Your task to perform on an android device: turn on the 12-hour format for clock Image 0: 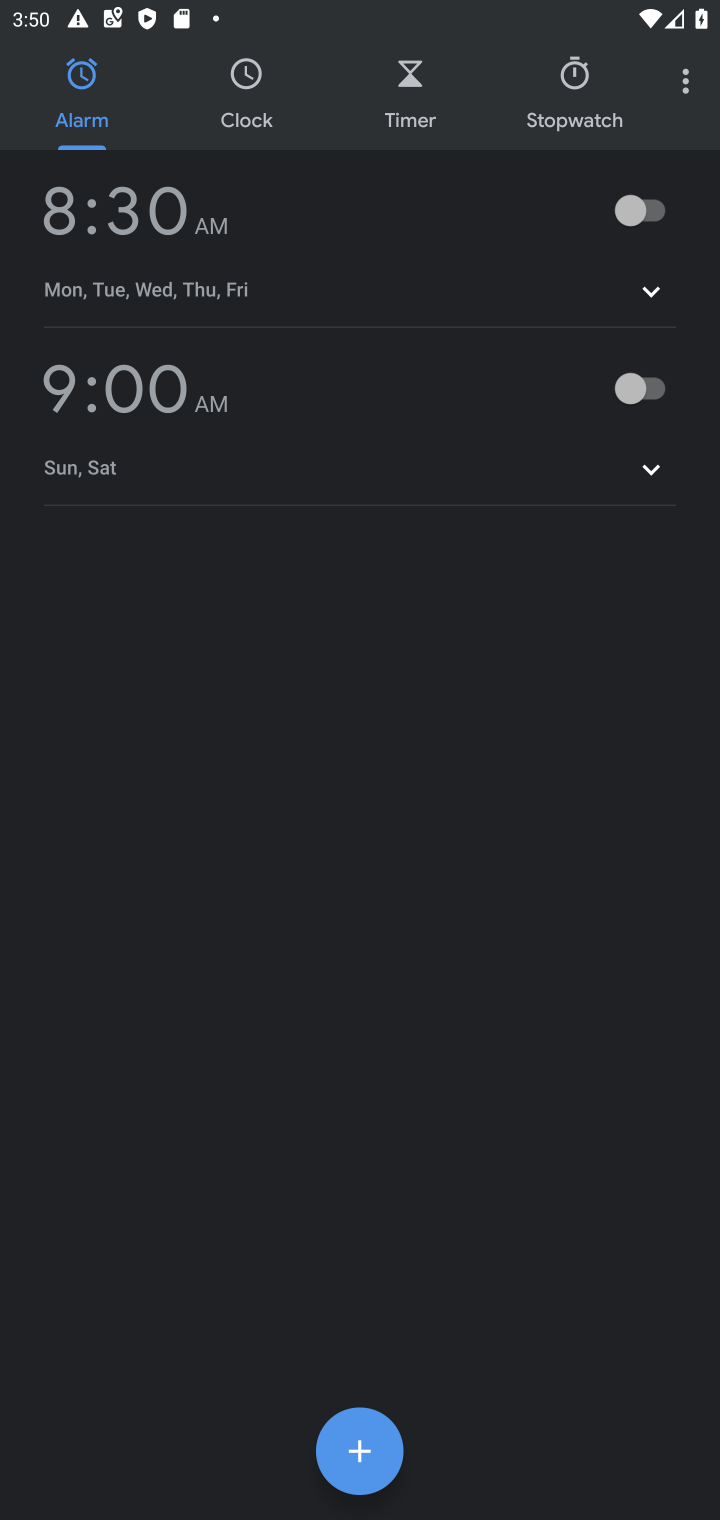
Step 0: click (677, 75)
Your task to perform on an android device: turn on the 12-hour format for clock Image 1: 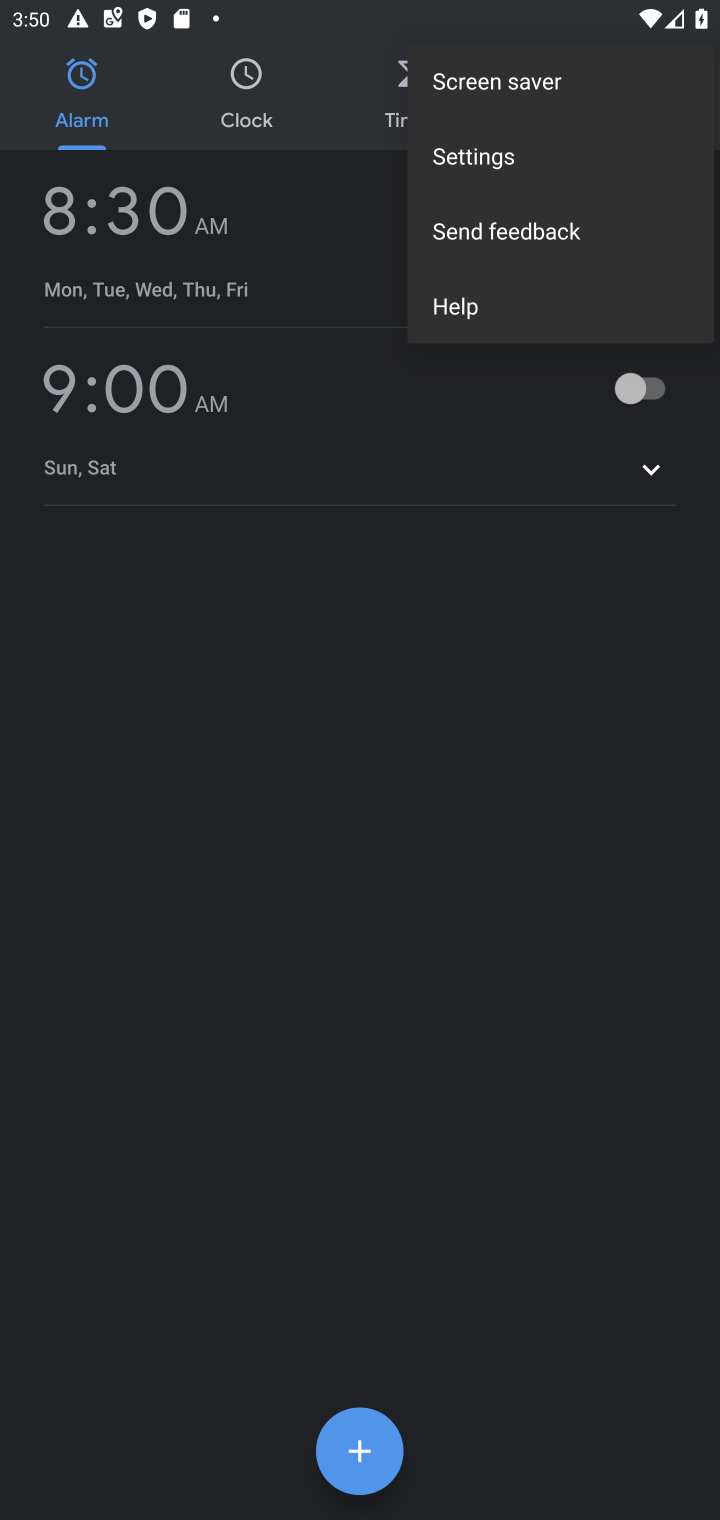
Step 1: click (462, 158)
Your task to perform on an android device: turn on the 12-hour format for clock Image 2: 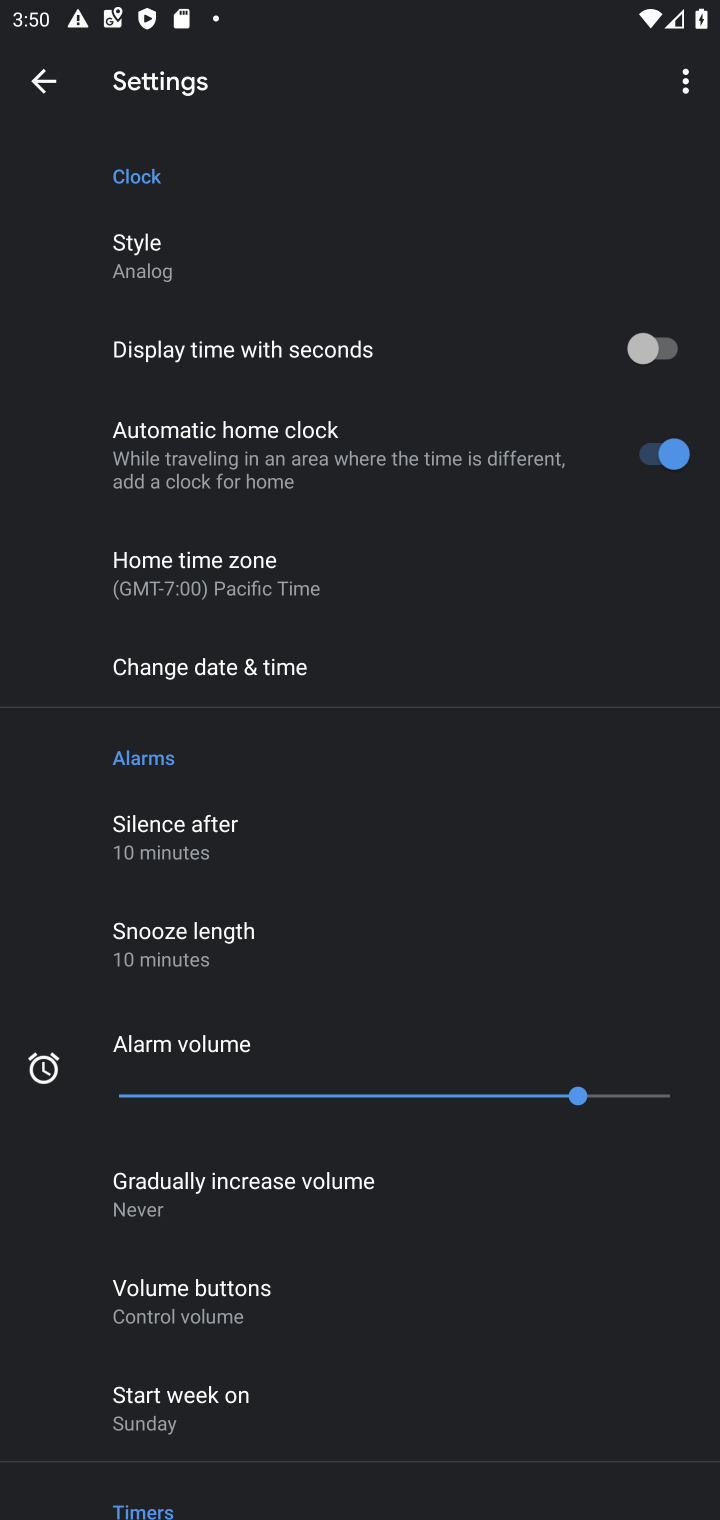
Step 2: click (303, 650)
Your task to perform on an android device: turn on the 12-hour format for clock Image 3: 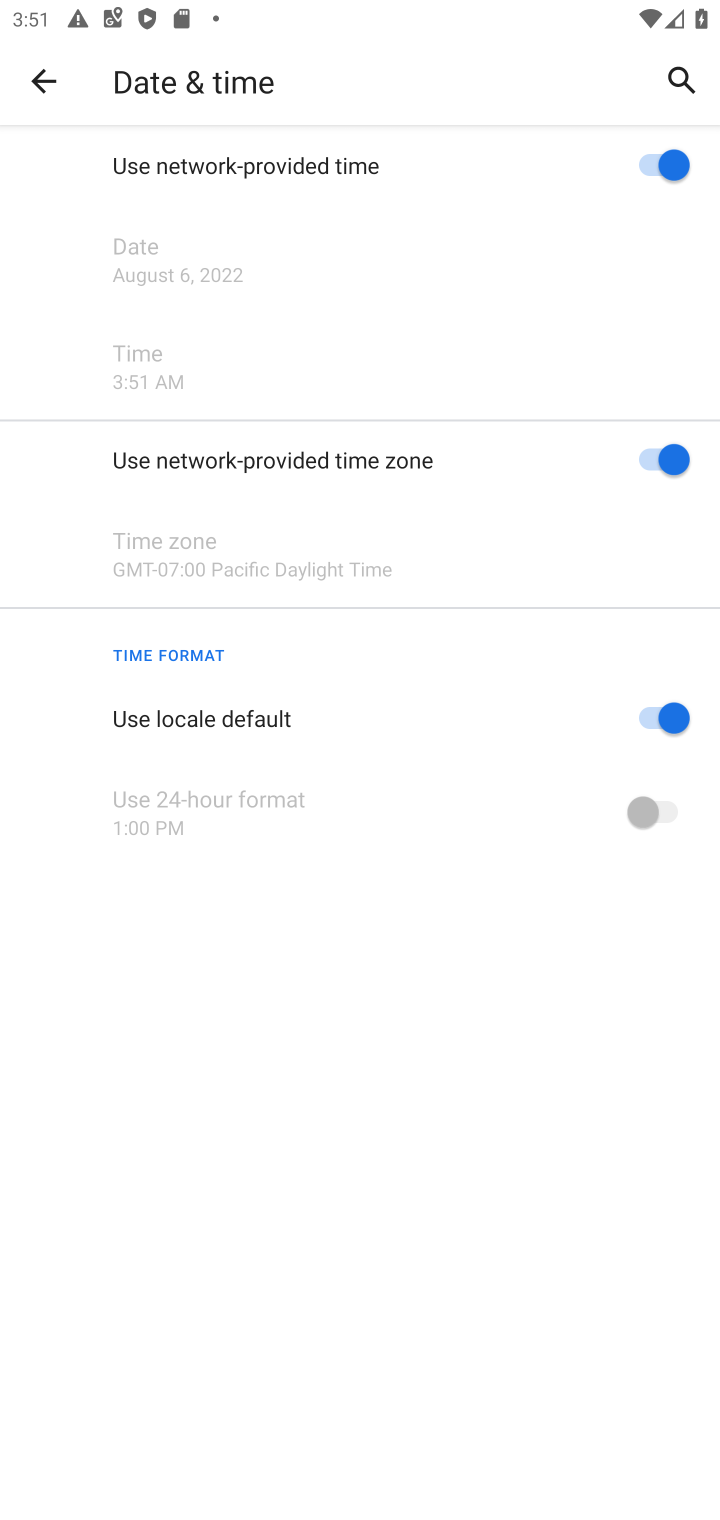
Step 3: click (640, 718)
Your task to perform on an android device: turn on the 12-hour format for clock Image 4: 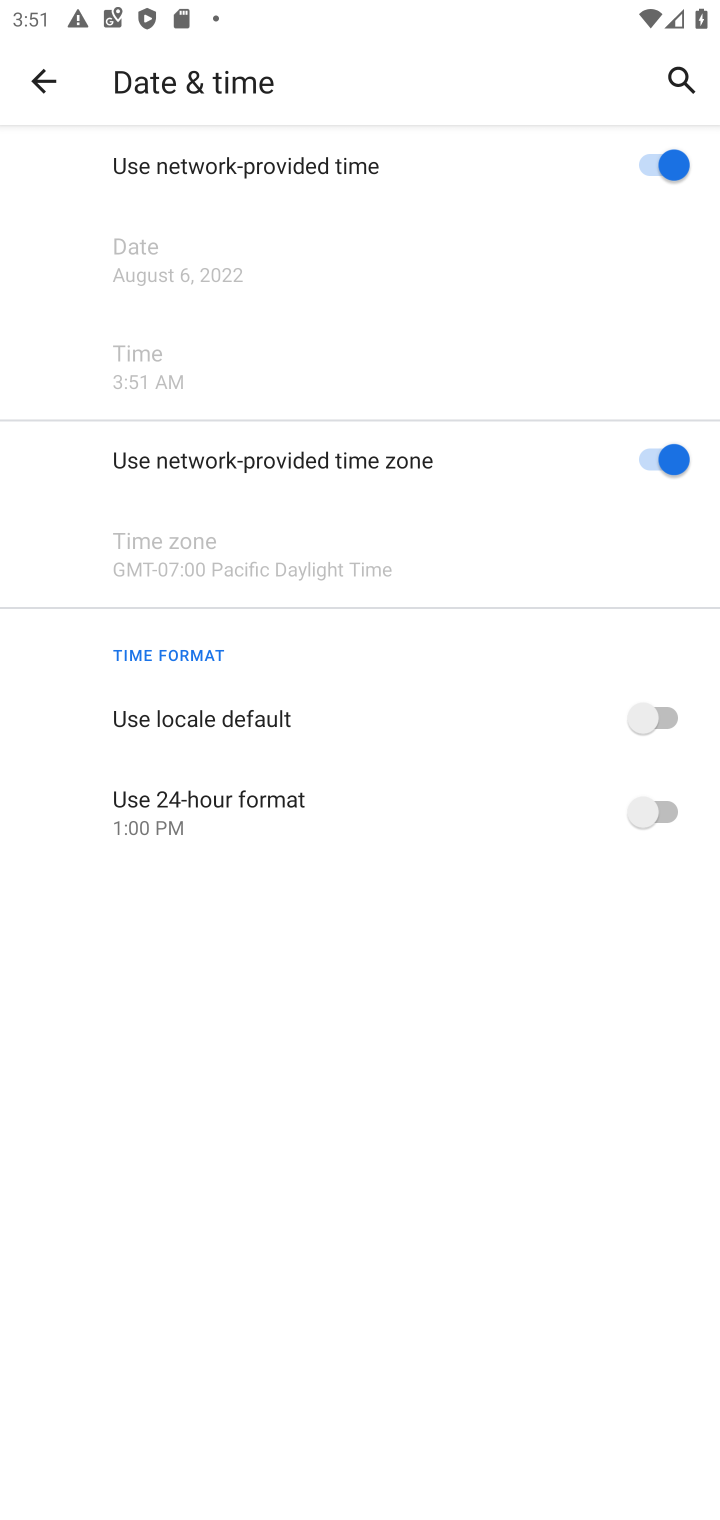
Step 4: task complete